Your task to perform on an android device: Open display settings Image 0: 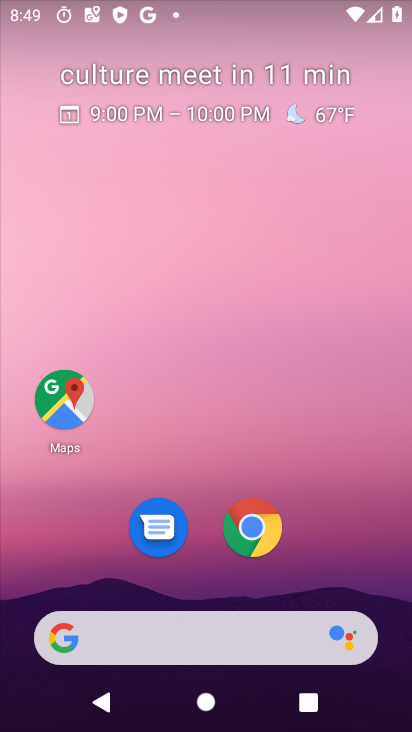
Step 0: drag from (228, 723) to (219, 82)
Your task to perform on an android device: Open display settings Image 1: 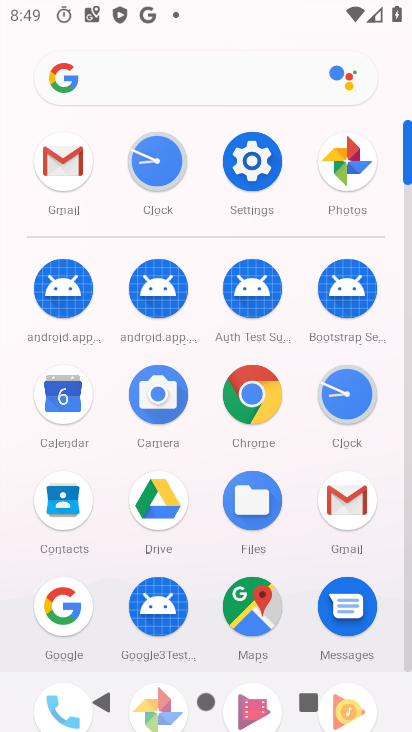
Step 1: click (255, 164)
Your task to perform on an android device: Open display settings Image 2: 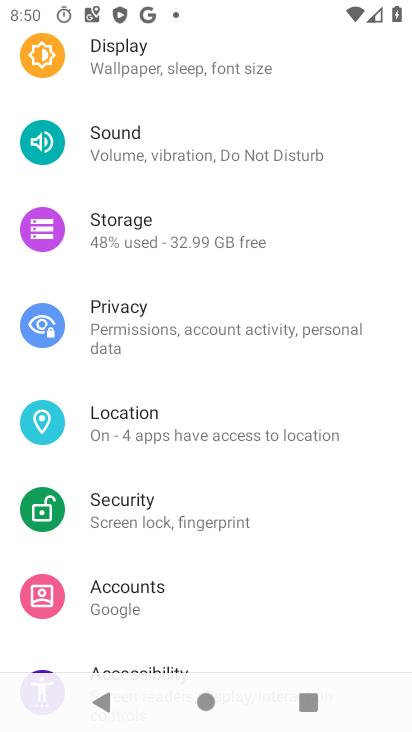
Step 2: drag from (198, 126) to (229, 356)
Your task to perform on an android device: Open display settings Image 3: 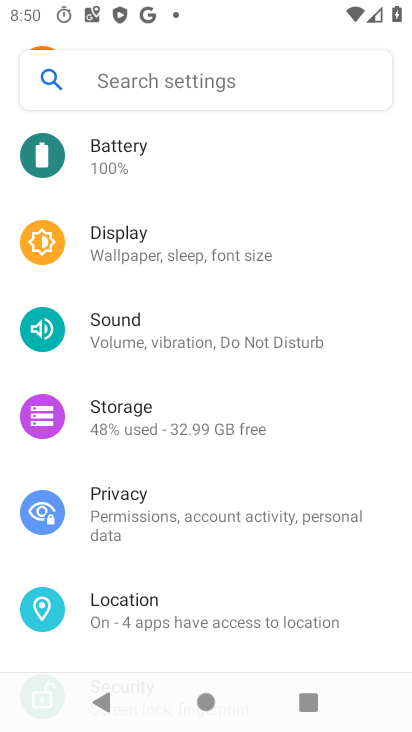
Step 3: click (136, 244)
Your task to perform on an android device: Open display settings Image 4: 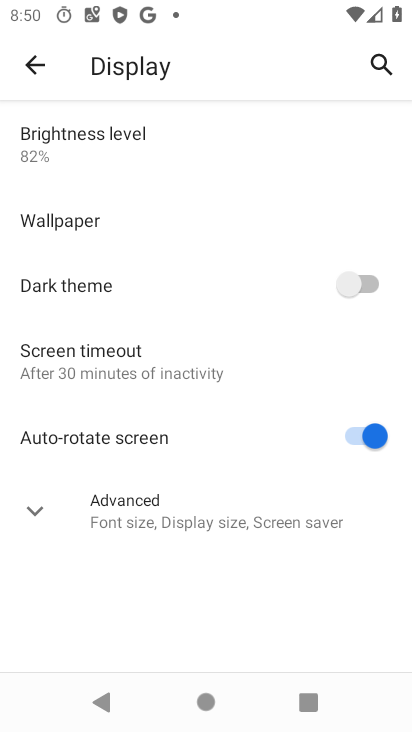
Step 4: task complete